Your task to perform on an android device: turn on wifi Image 0: 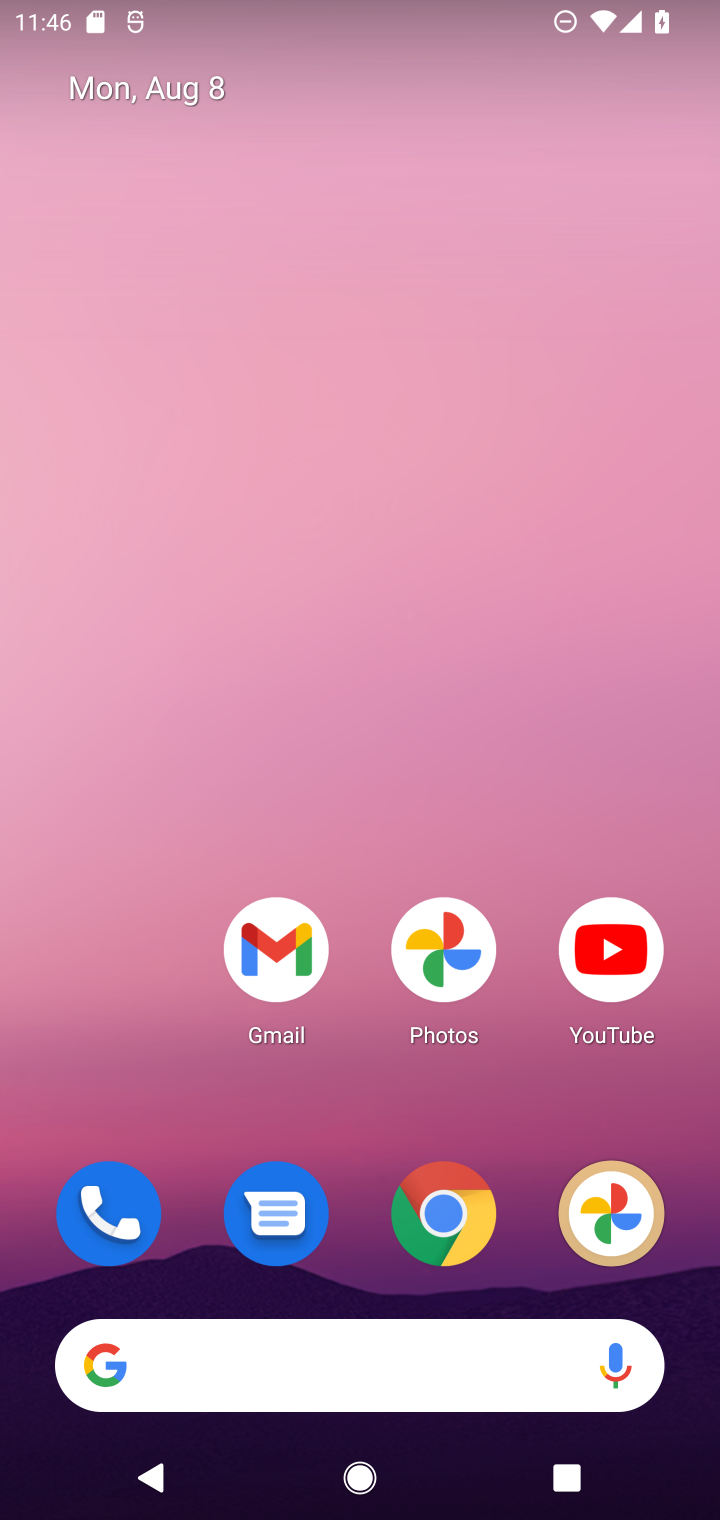
Step 0: press home button
Your task to perform on an android device: turn on wifi Image 1: 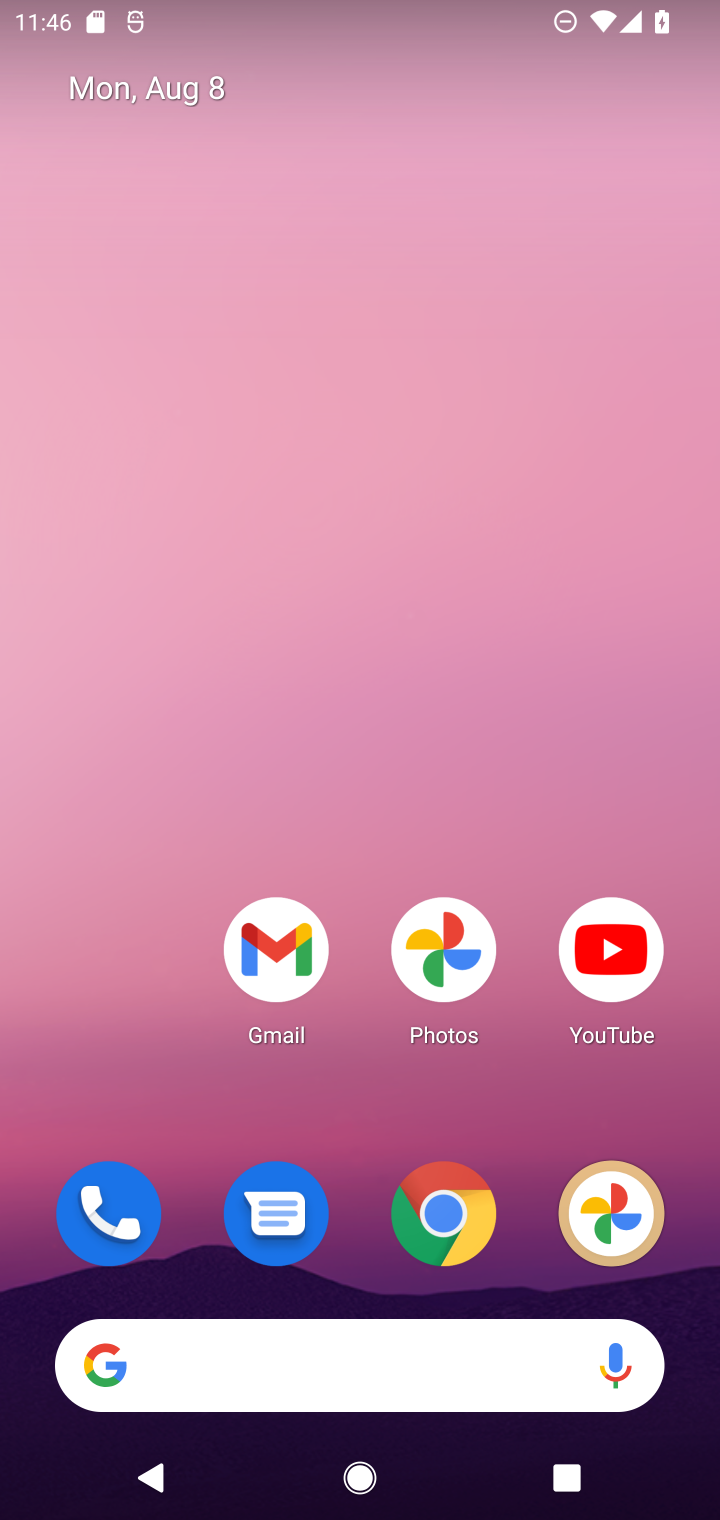
Step 1: drag from (358, 1106) to (426, 16)
Your task to perform on an android device: turn on wifi Image 2: 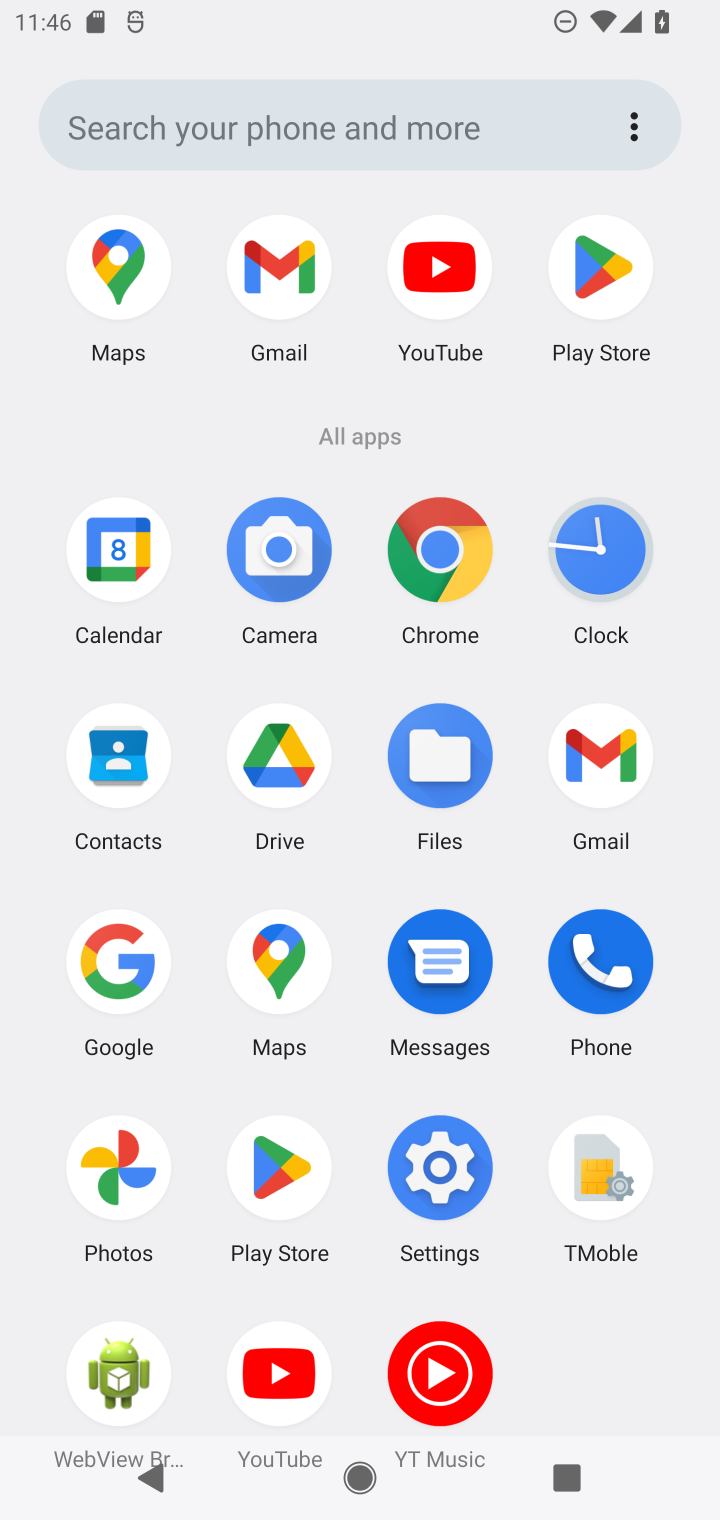
Step 2: click (437, 1150)
Your task to perform on an android device: turn on wifi Image 3: 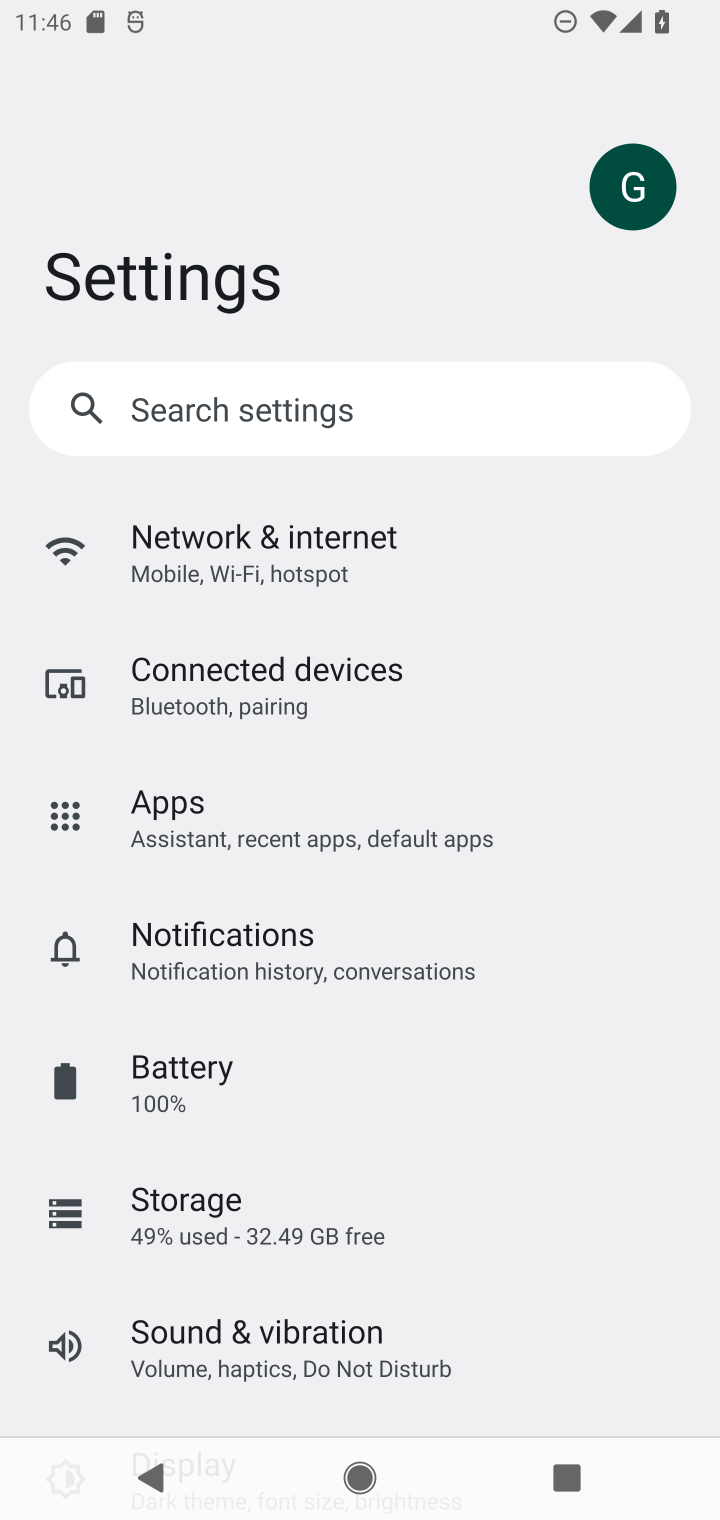
Step 3: click (261, 555)
Your task to perform on an android device: turn on wifi Image 4: 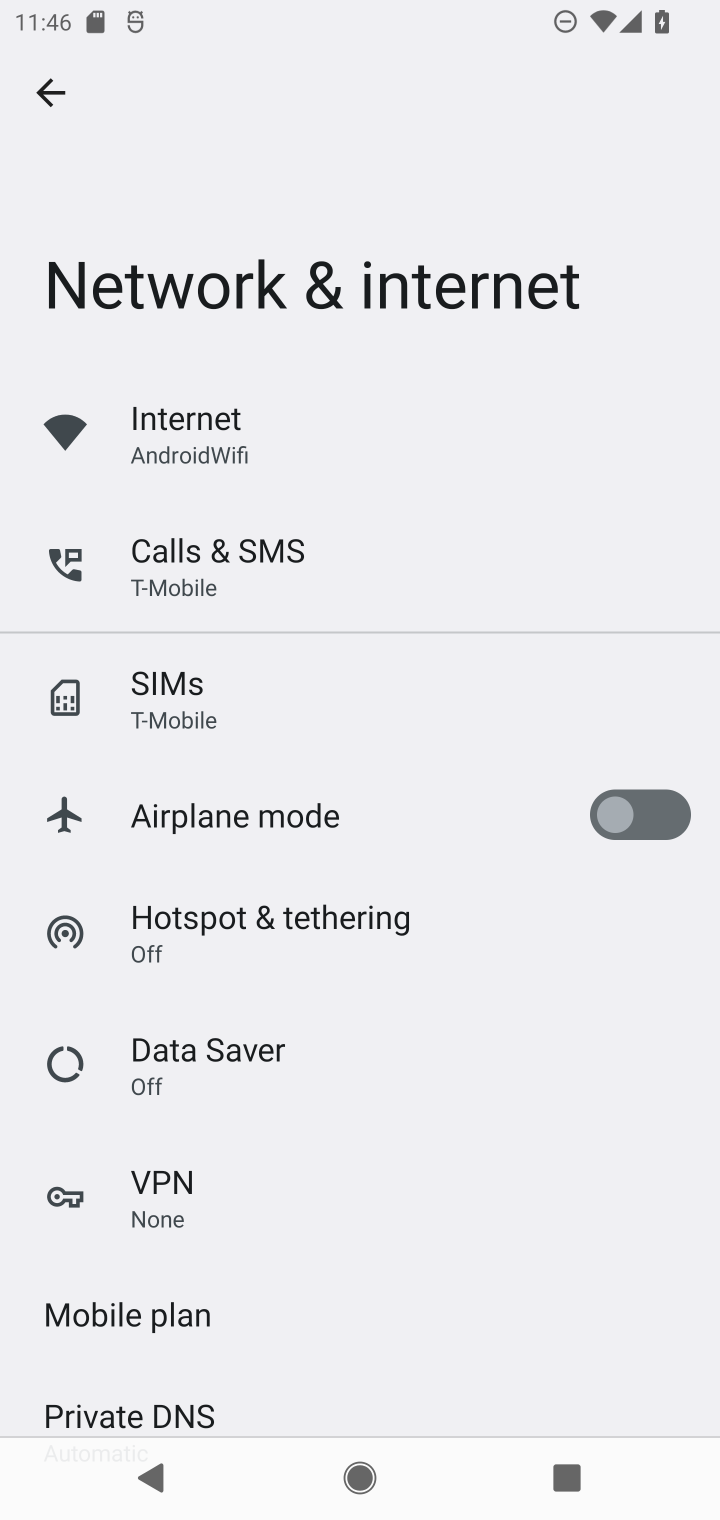
Step 4: click (250, 428)
Your task to perform on an android device: turn on wifi Image 5: 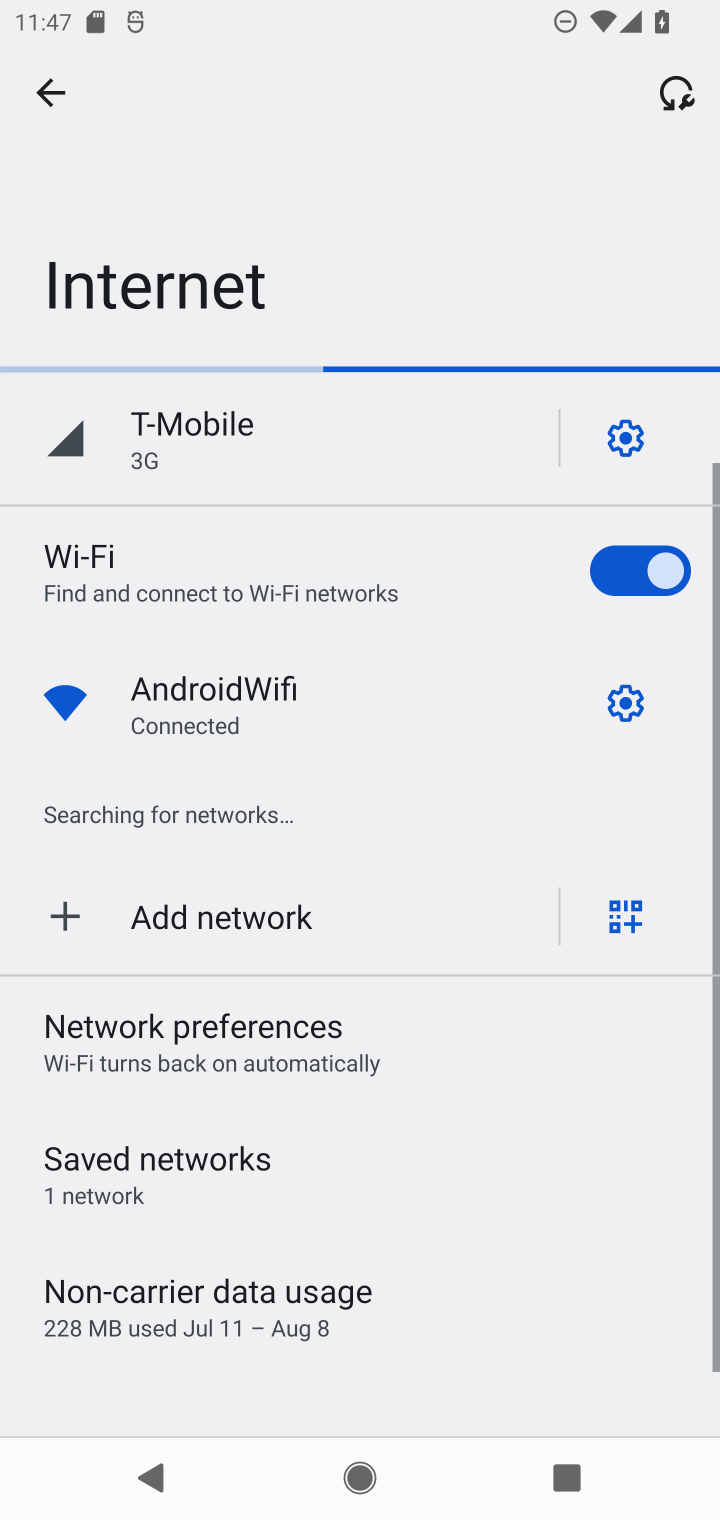
Step 5: task complete